Your task to perform on an android device: see sites visited before in the chrome app Image 0: 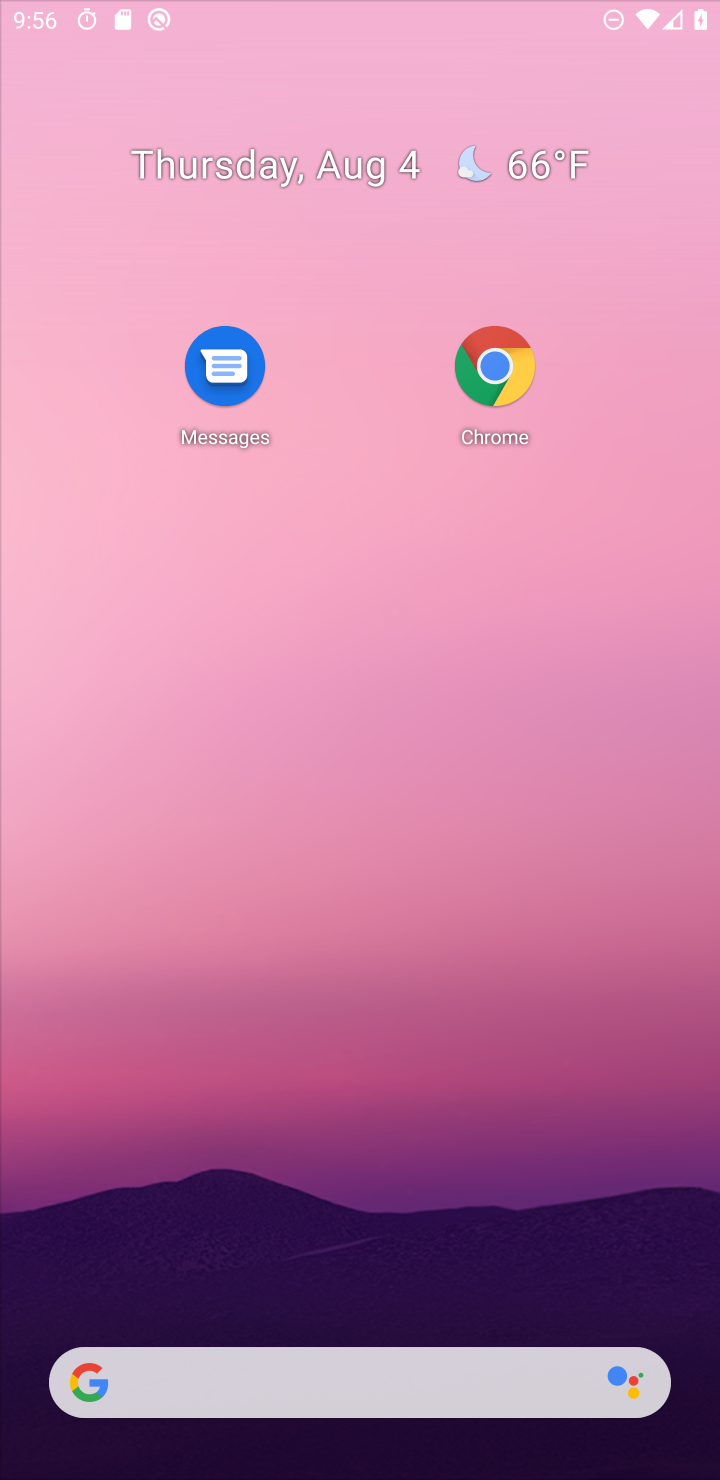
Step 0: press home button
Your task to perform on an android device: see sites visited before in the chrome app Image 1: 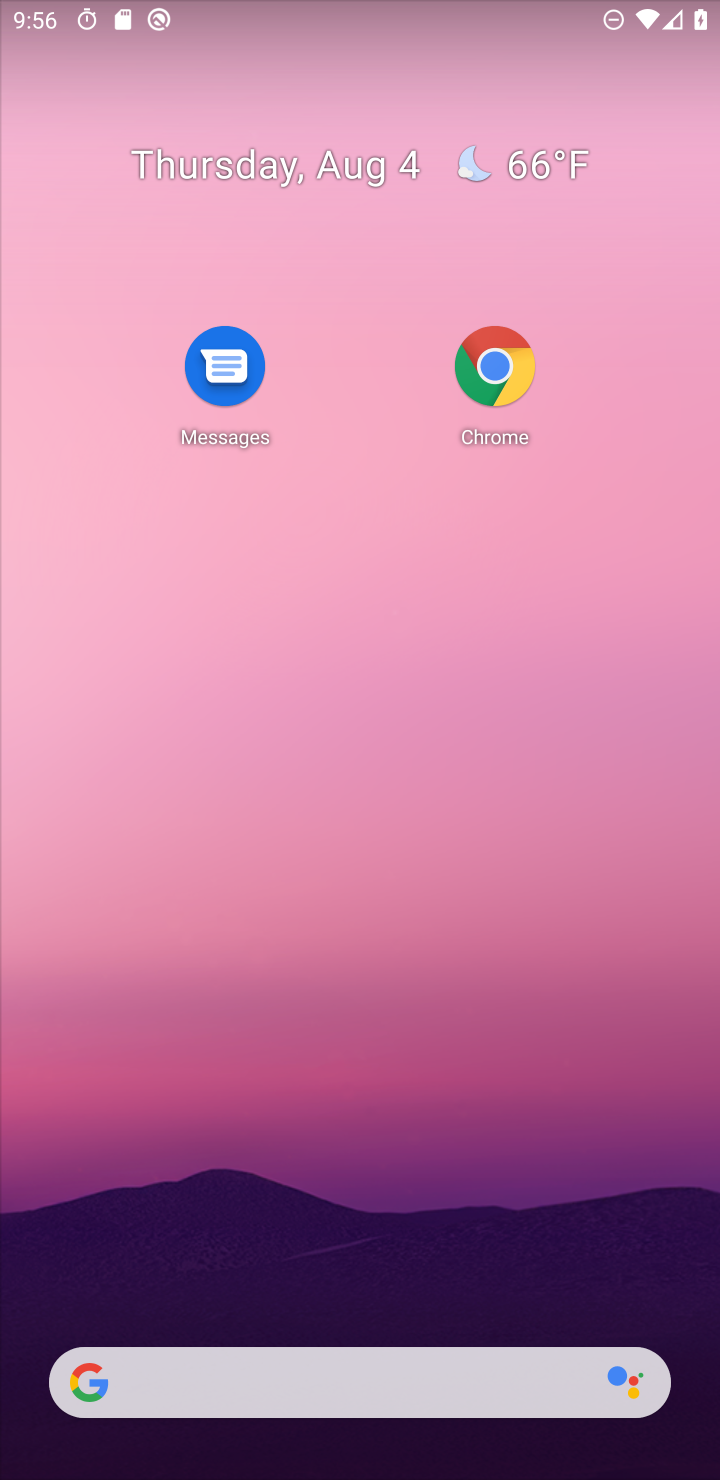
Step 1: drag from (397, 1424) to (717, 211)
Your task to perform on an android device: see sites visited before in the chrome app Image 2: 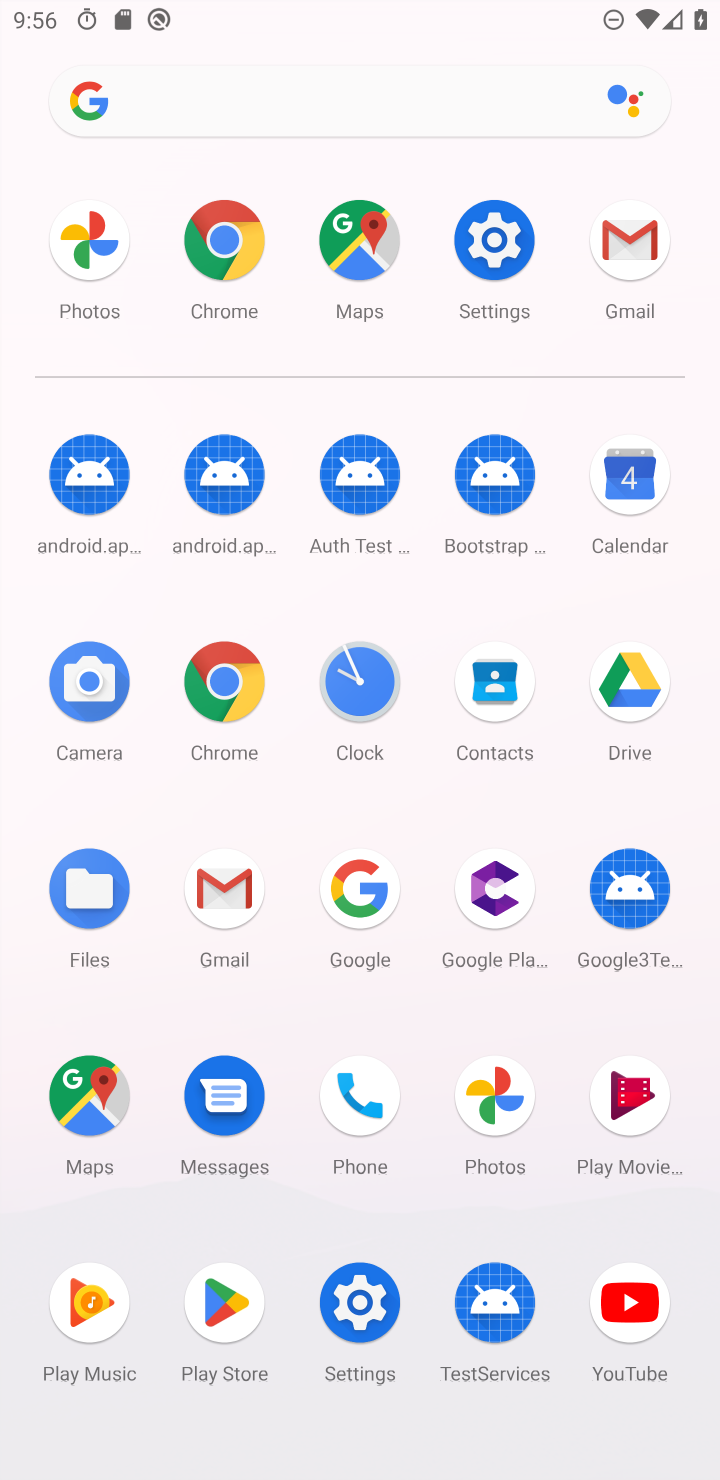
Step 2: click (206, 245)
Your task to perform on an android device: see sites visited before in the chrome app Image 3: 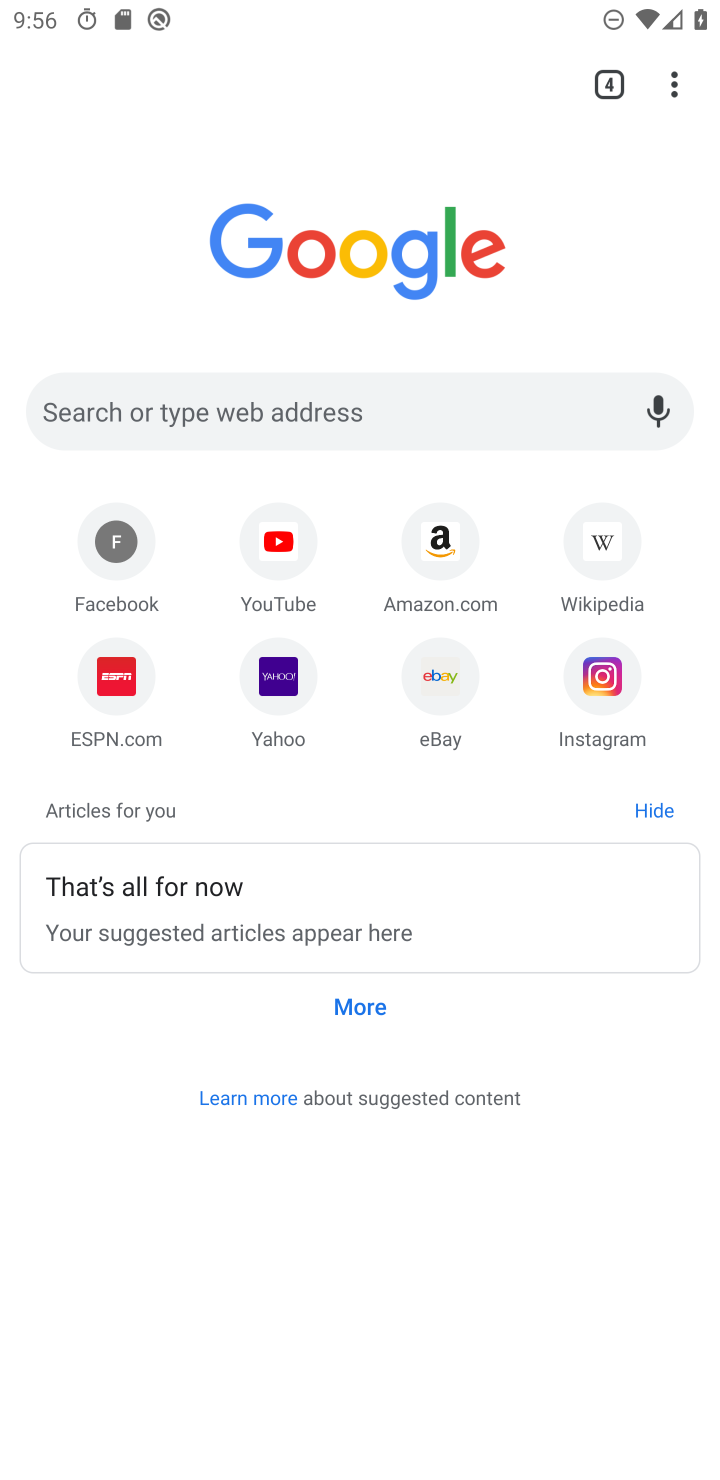
Step 3: click (667, 96)
Your task to perform on an android device: see sites visited before in the chrome app Image 4: 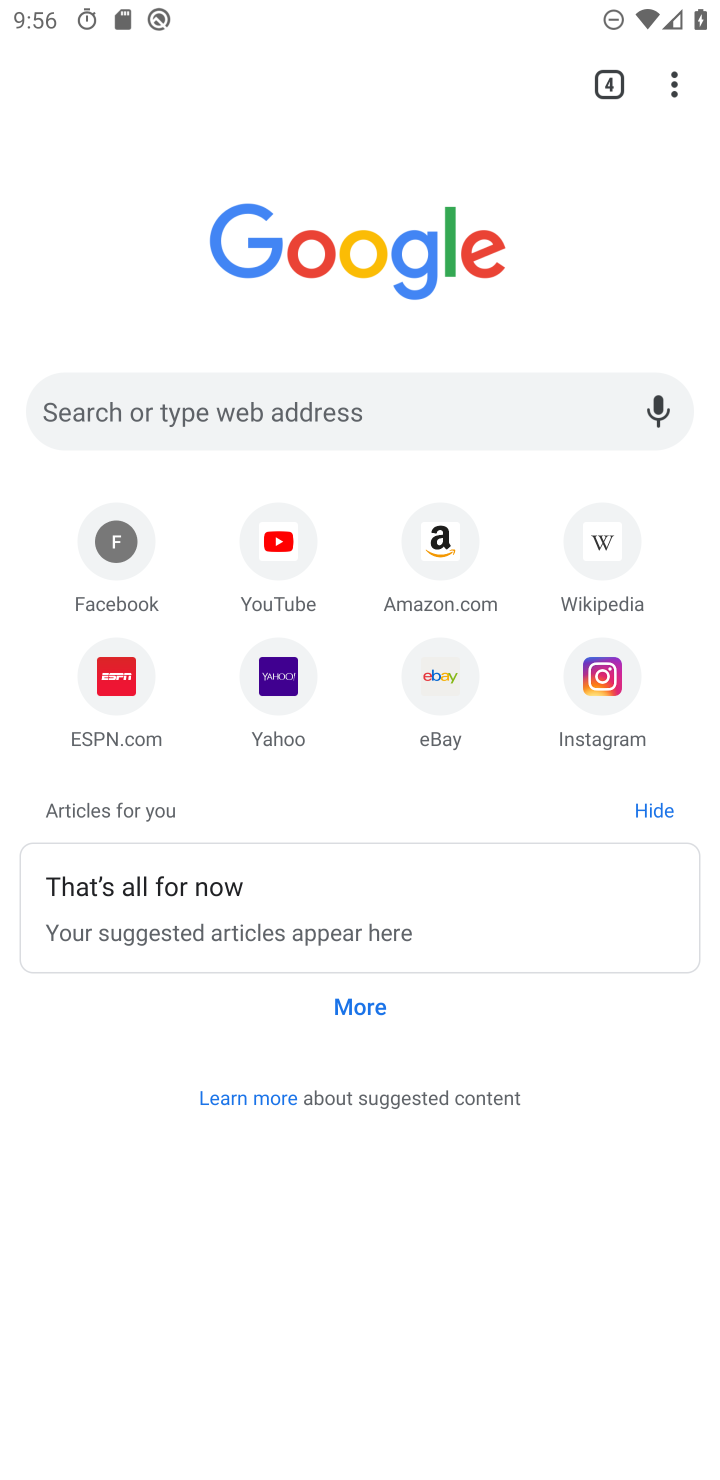
Step 4: click (671, 74)
Your task to perform on an android device: see sites visited before in the chrome app Image 5: 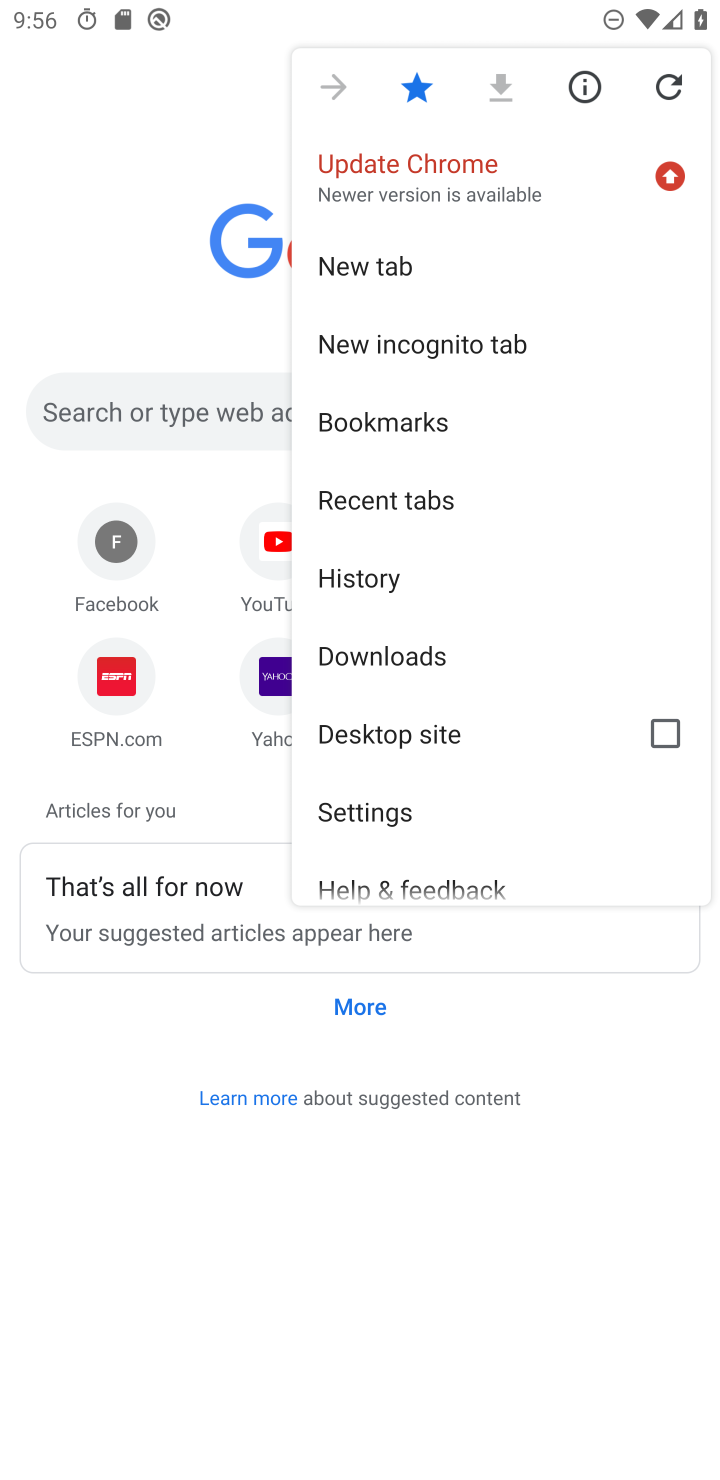
Step 5: click (417, 810)
Your task to perform on an android device: see sites visited before in the chrome app Image 6: 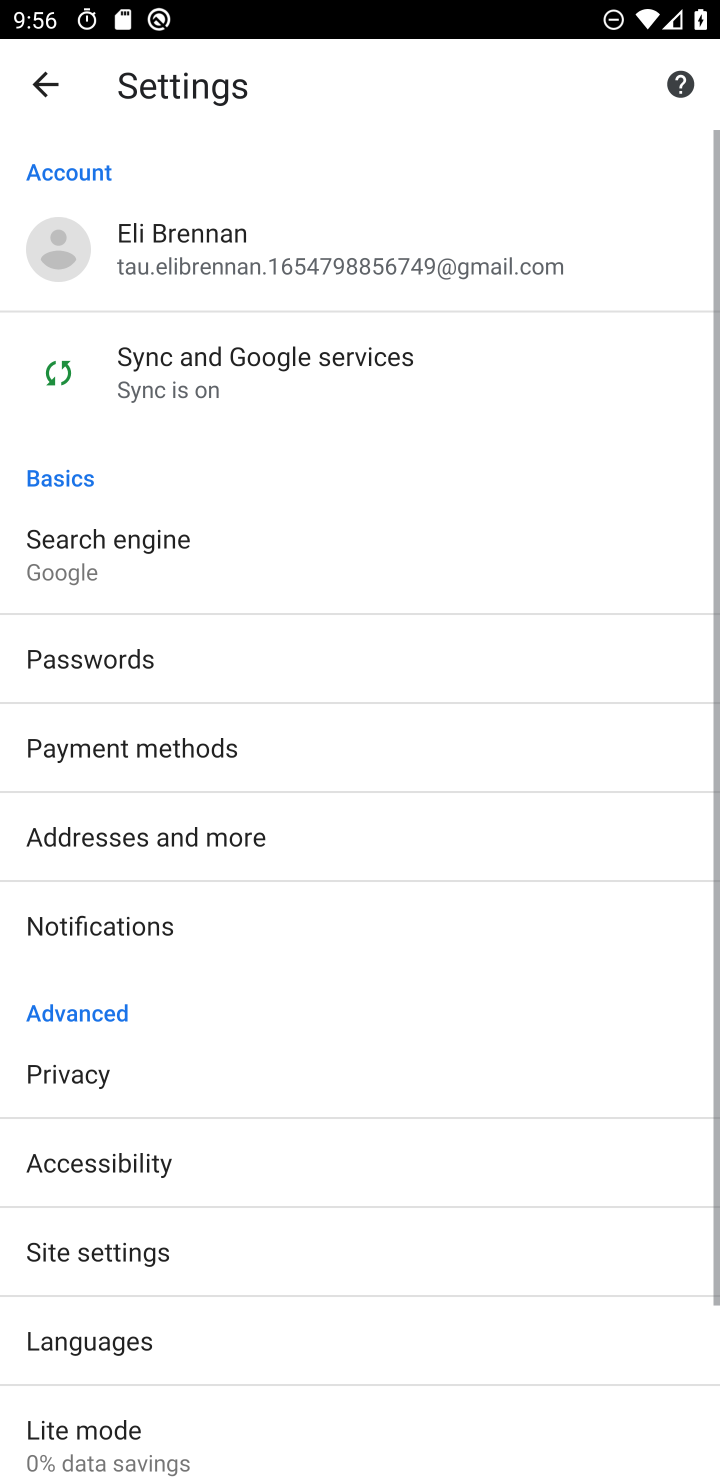
Step 6: click (173, 1245)
Your task to perform on an android device: see sites visited before in the chrome app Image 7: 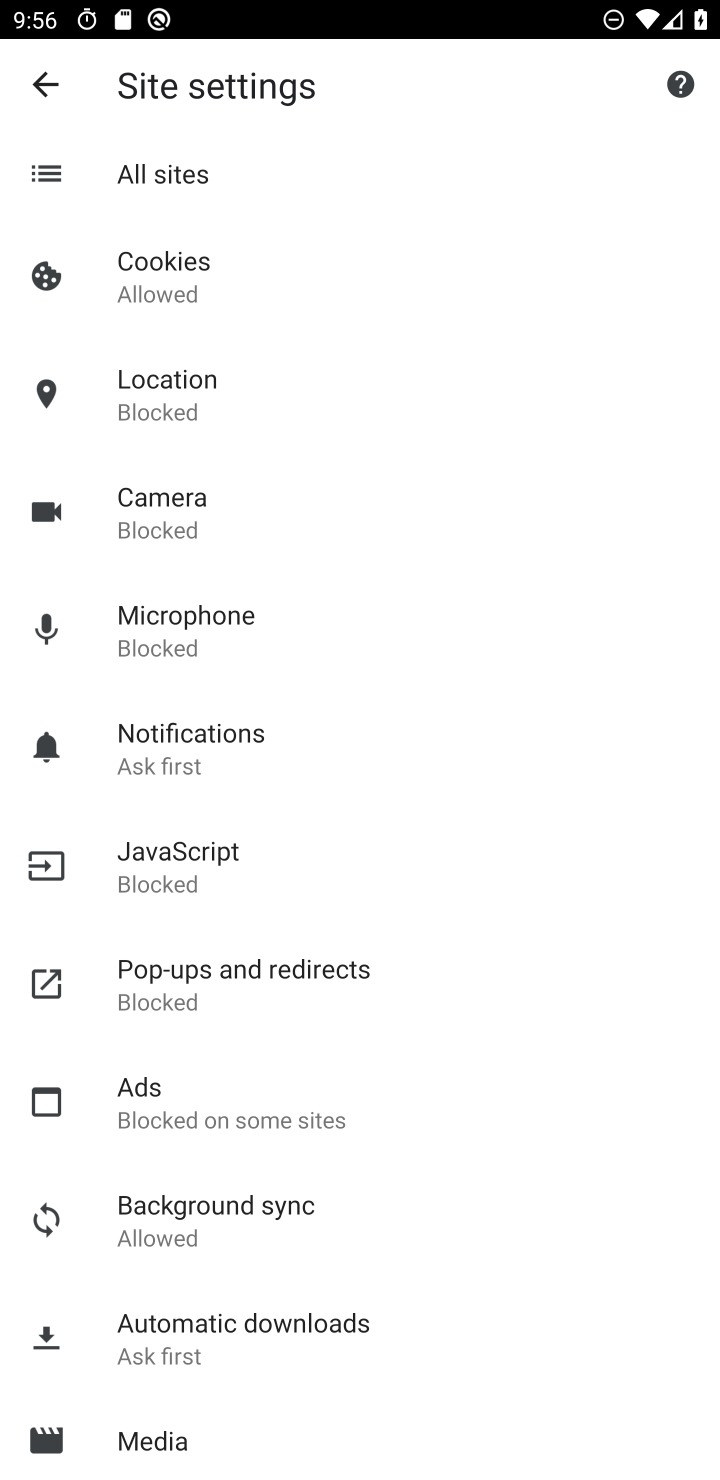
Step 7: click (207, 152)
Your task to perform on an android device: see sites visited before in the chrome app Image 8: 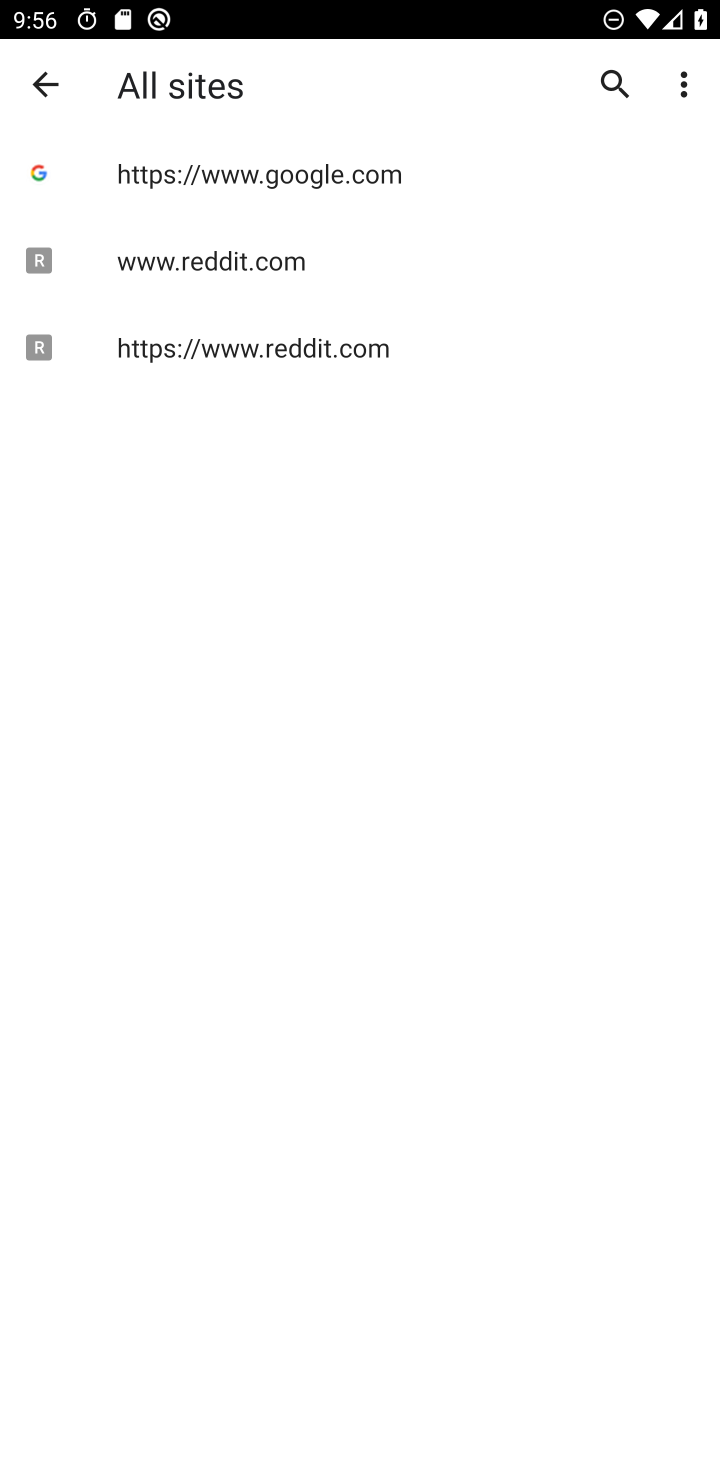
Step 8: click (196, 262)
Your task to perform on an android device: see sites visited before in the chrome app Image 9: 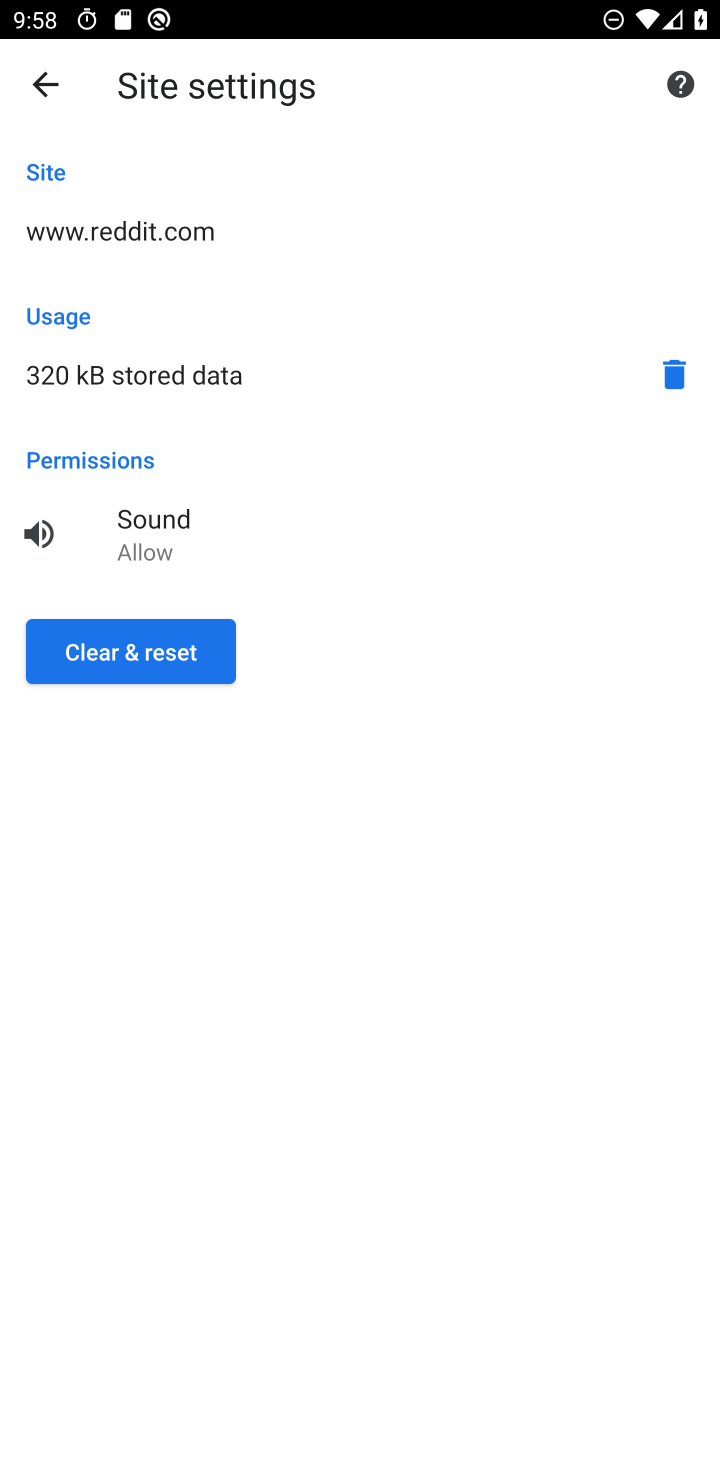
Step 9: task complete